Your task to perform on an android device: see creations saved in the google photos Image 0: 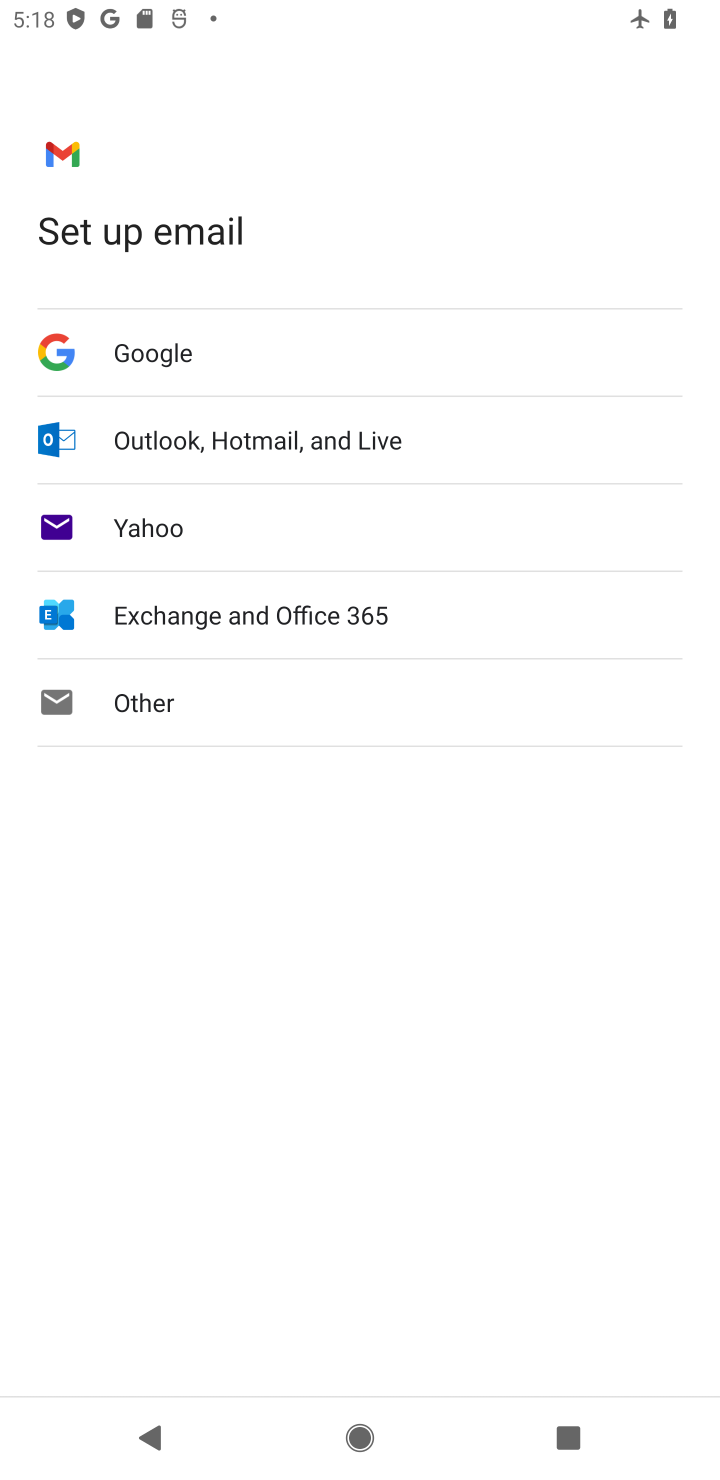
Step 0: press home button
Your task to perform on an android device: see creations saved in the google photos Image 1: 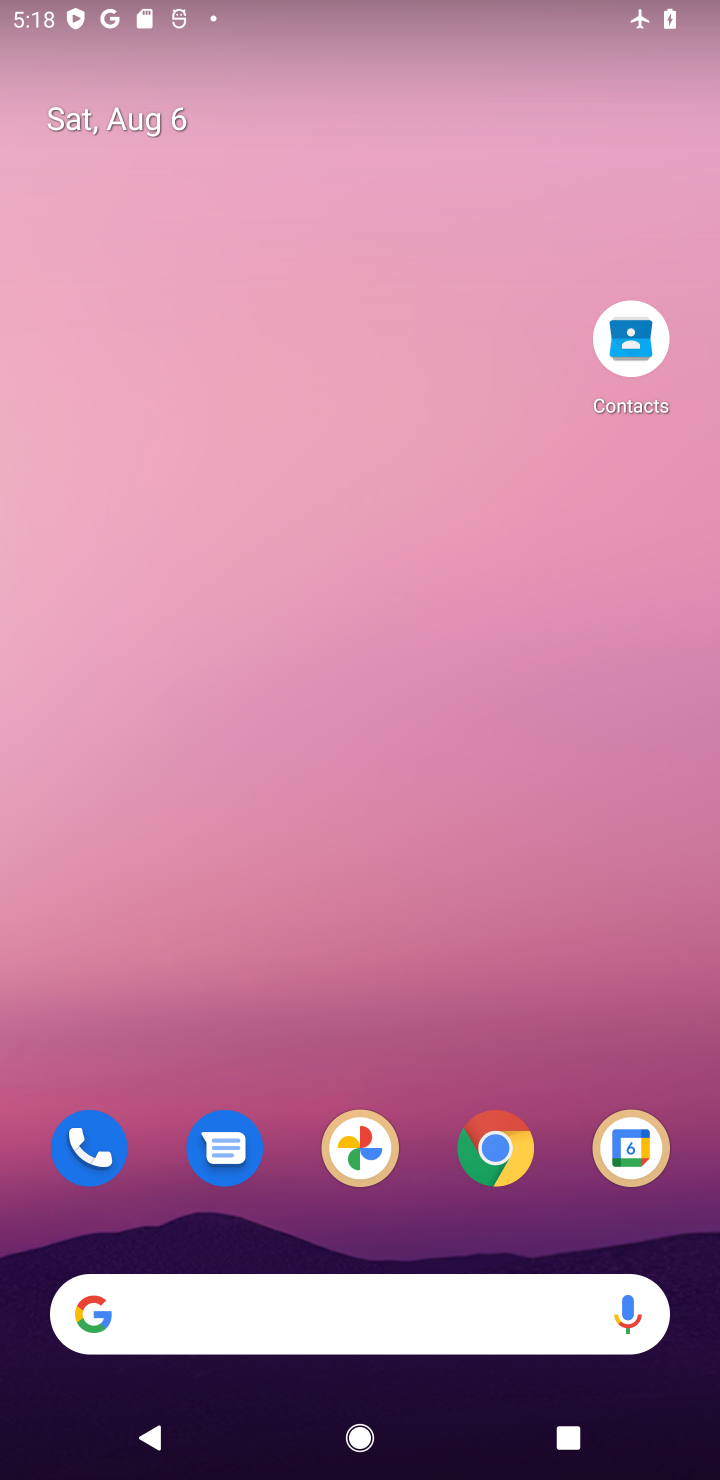
Step 1: drag from (402, 1238) to (615, 39)
Your task to perform on an android device: see creations saved in the google photos Image 2: 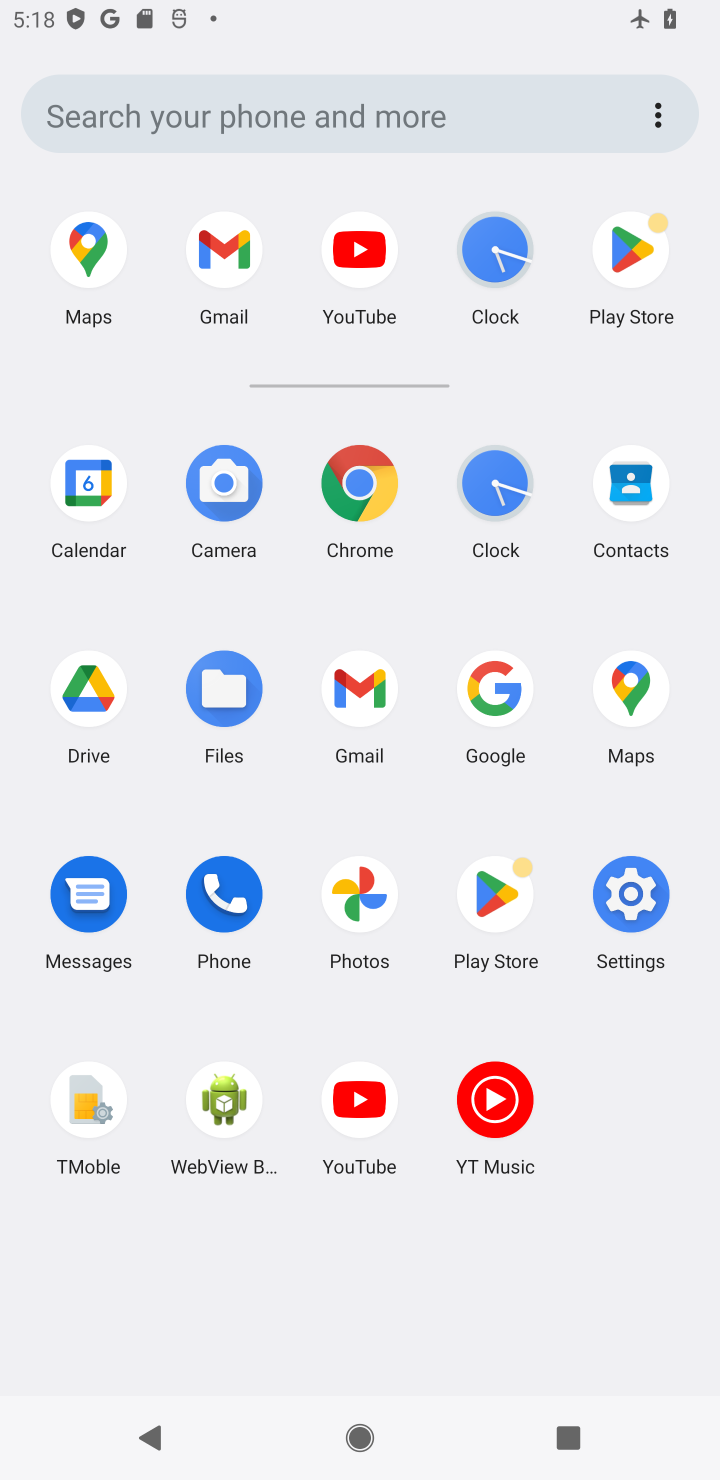
Step 2: click (375, 889)
Your task to perform on an android device: see creations saved in the google photos Image 3: 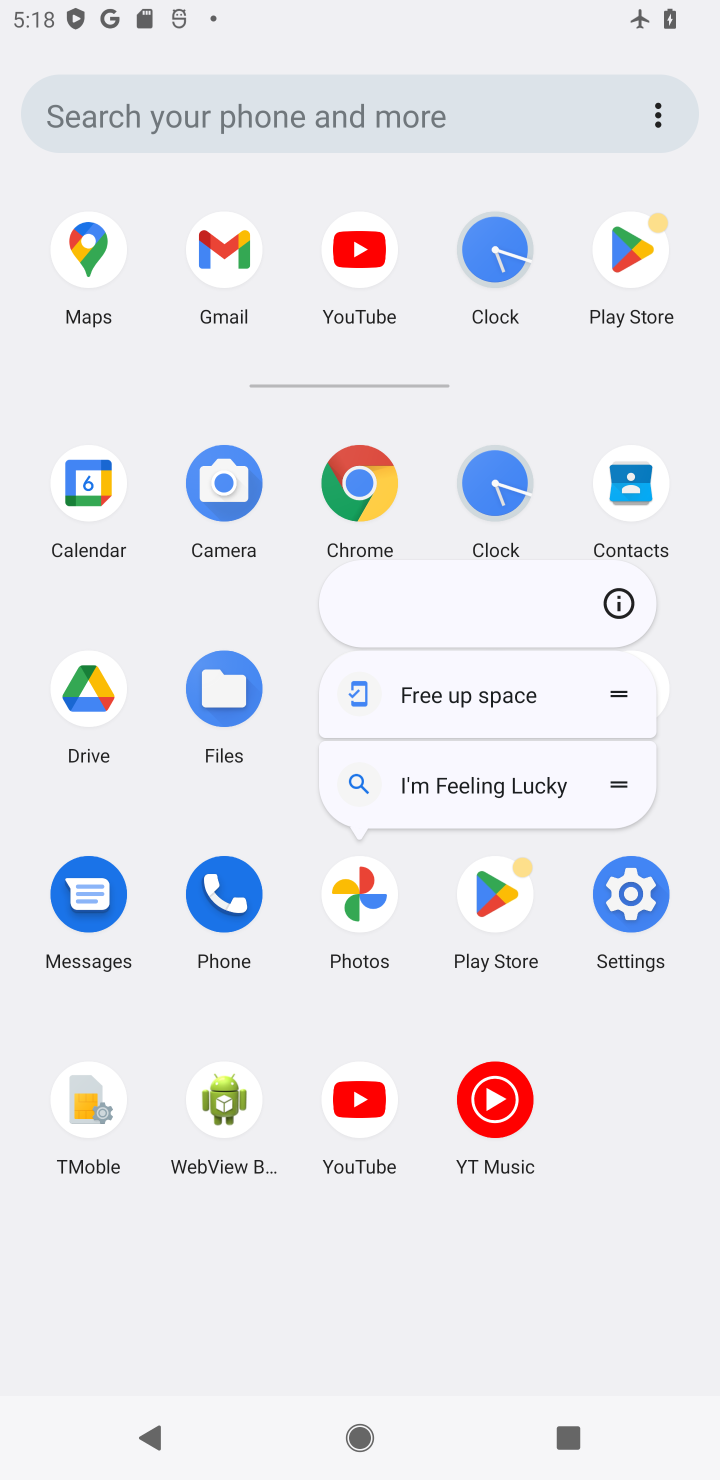
Step 3: click (375, 889)
Your task to perform on an android device: see creations saved in the google photos Image 4: 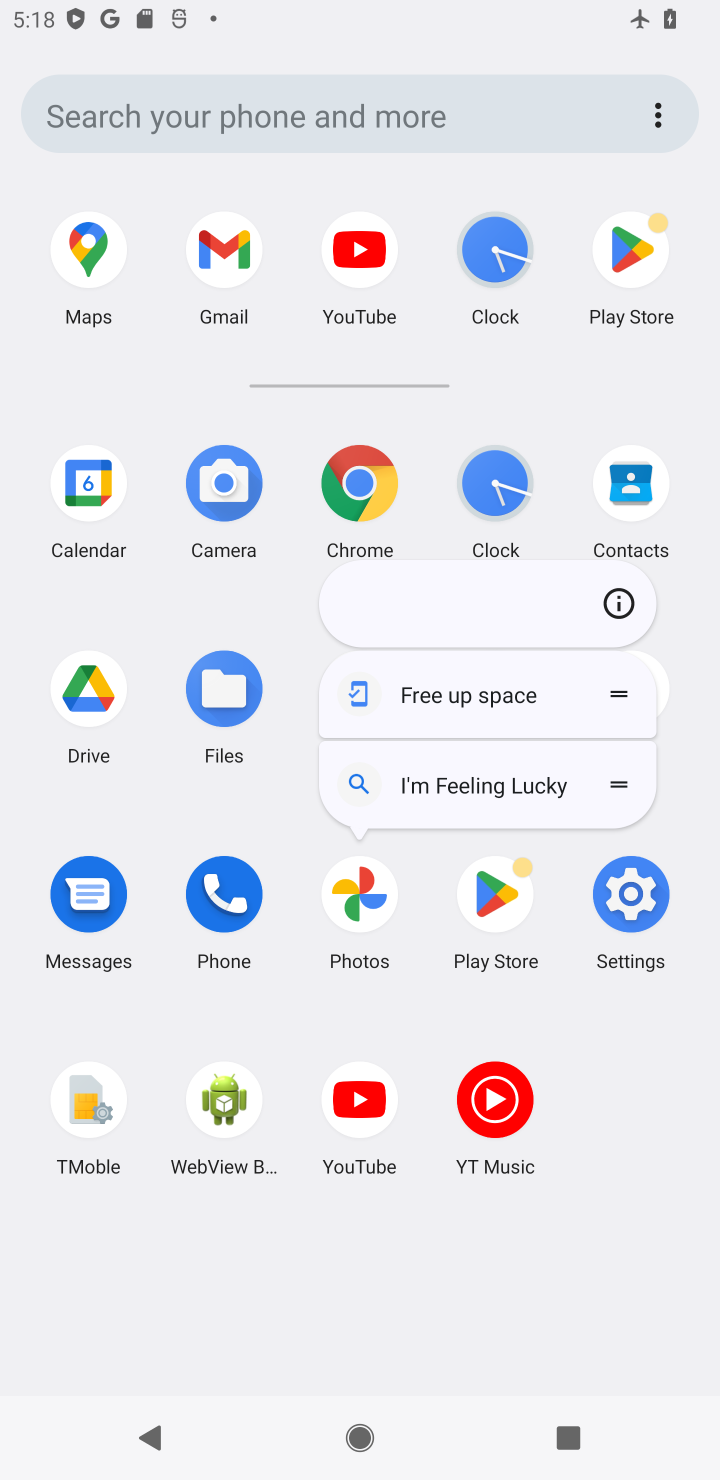
Step 4: click (349, 896)
Your task to perform on an android device: see creations saved in the google photos Image 5: 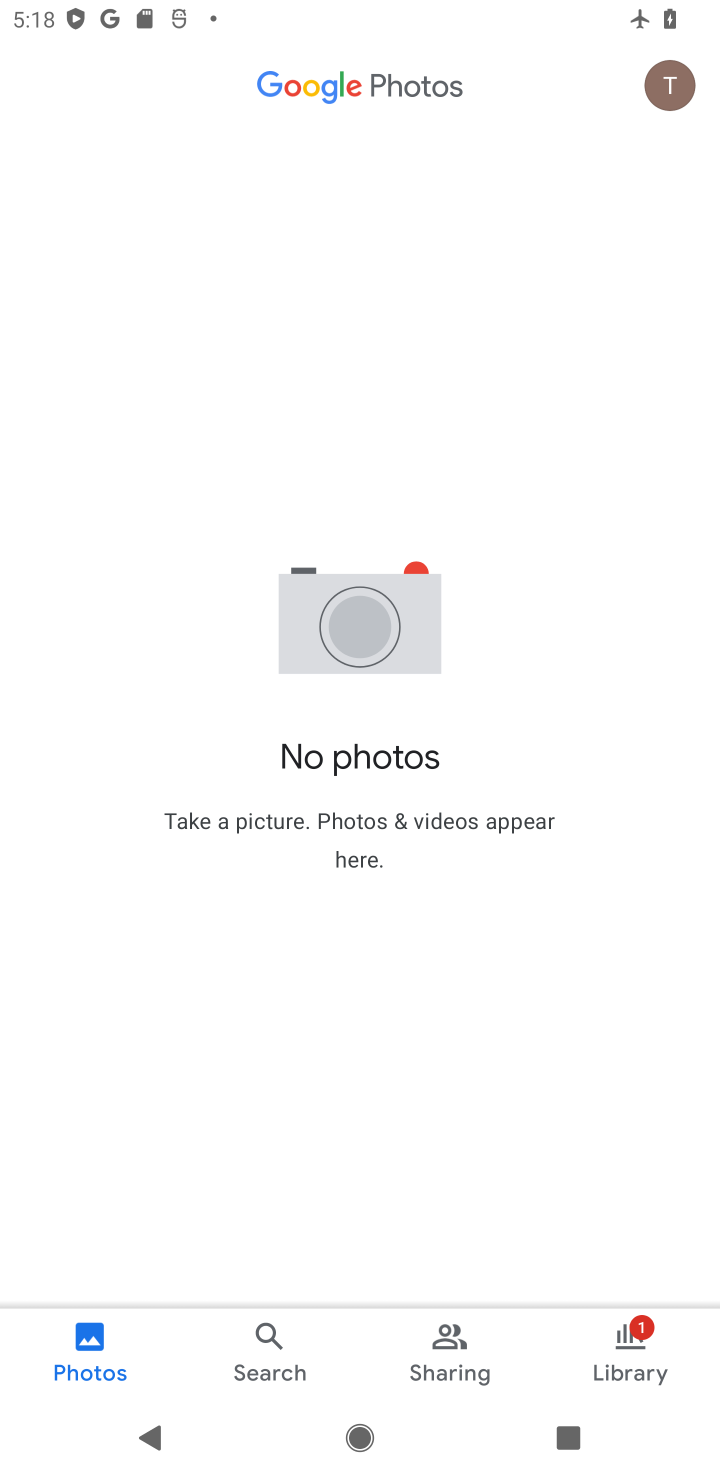
Step 5: click (254, 1345)
Your task to perform on an android device: see creations saved in the google photos Image 6: 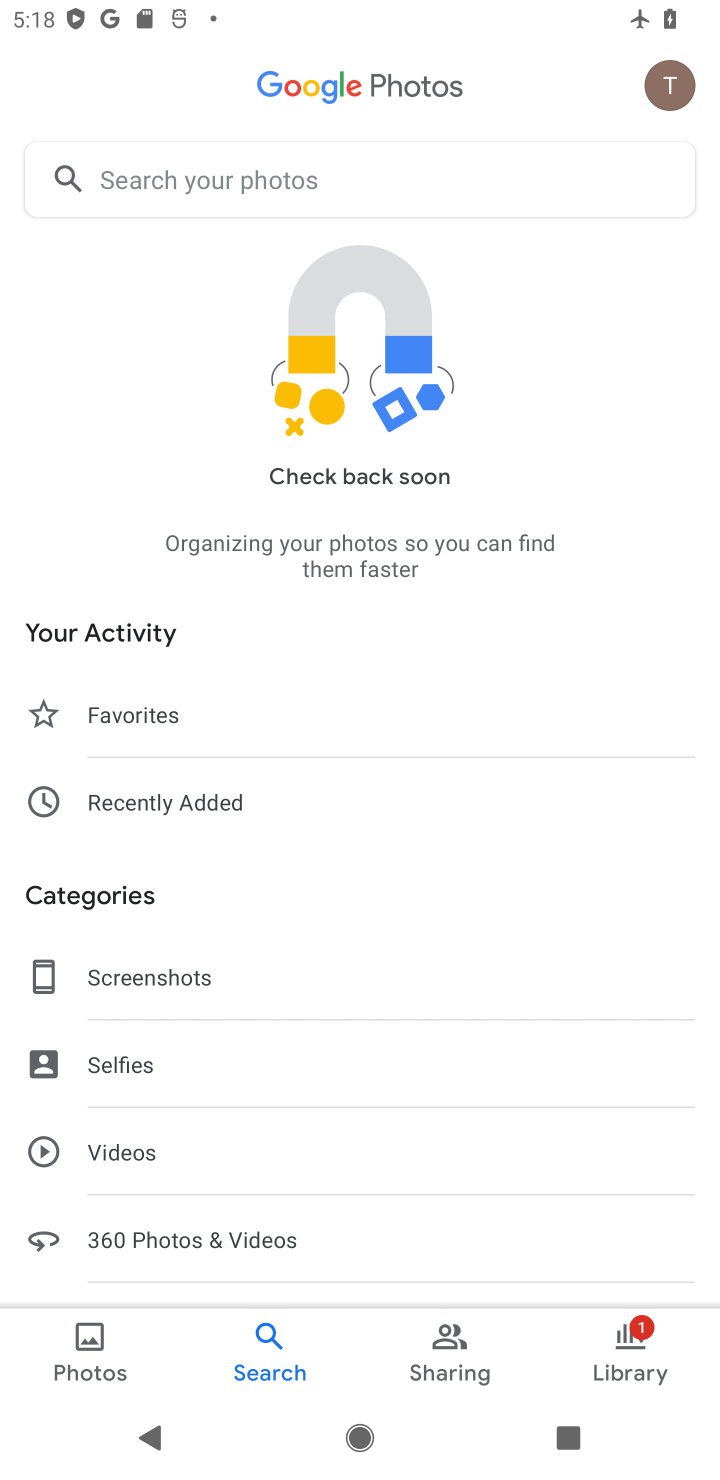
Step 6: click (277, 1334)
Your task to perform on an android device: see creations saved in the google photos Image 7: 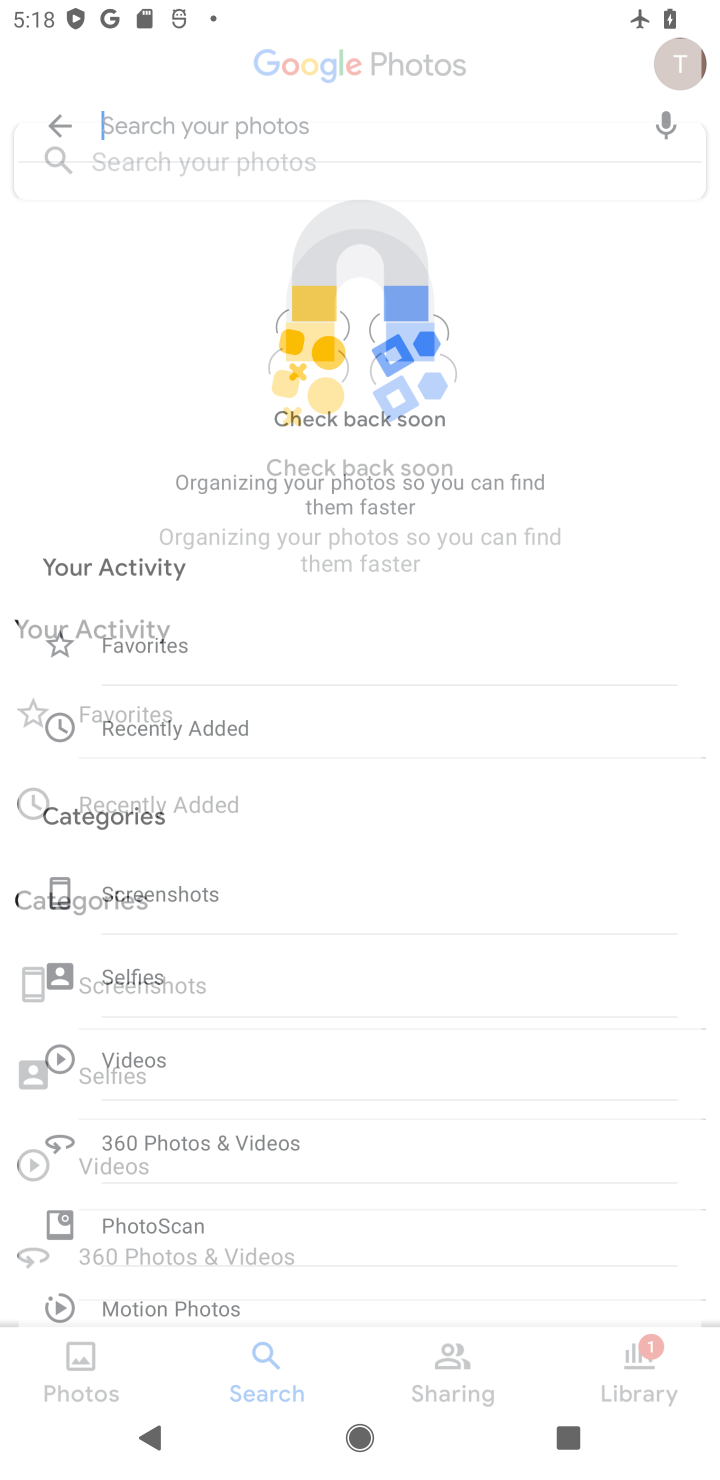
Step 7: drag from (288, 1229) to (289, 401)
Your task to perform on an android device: see creations saved in the google photos Image 8: 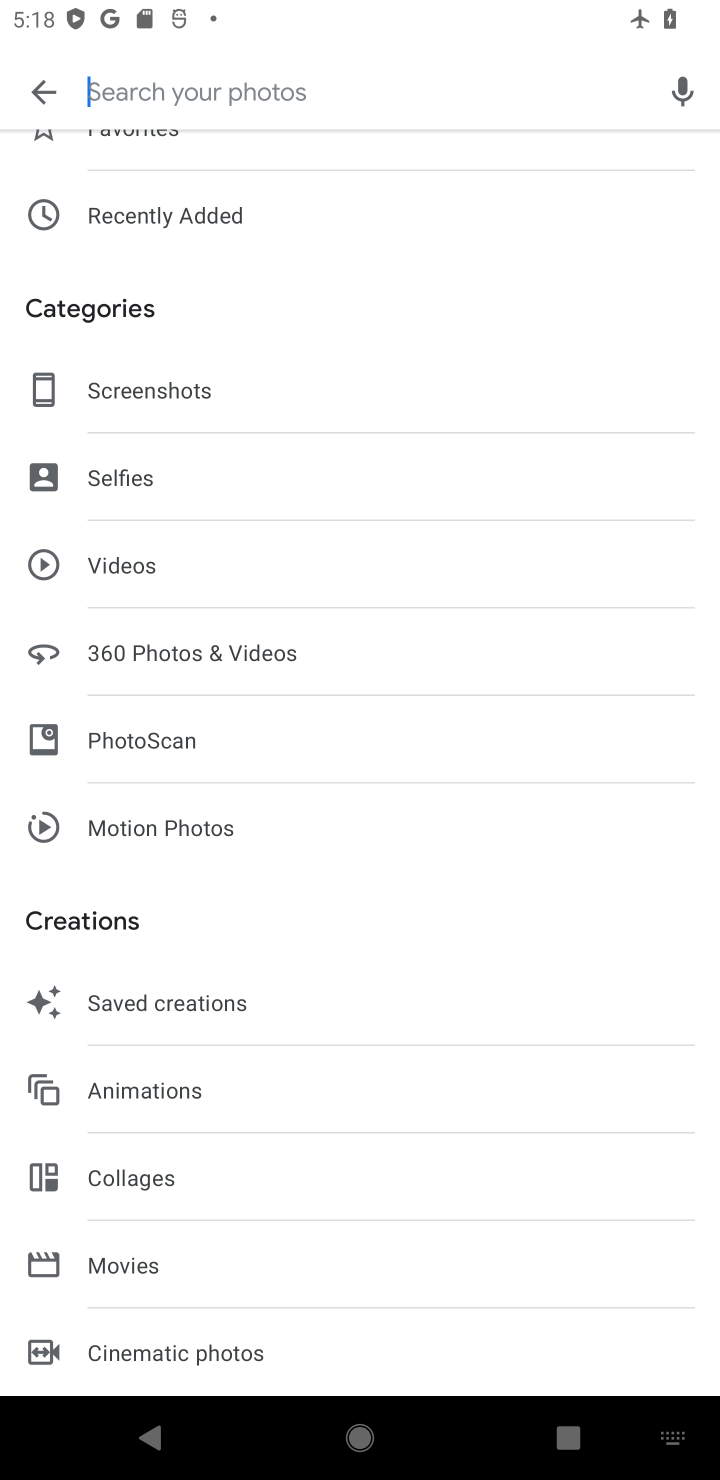
Step 8: click (192, 998)
Your task to perform on an android device: see creations saved in the google photos Image 9: 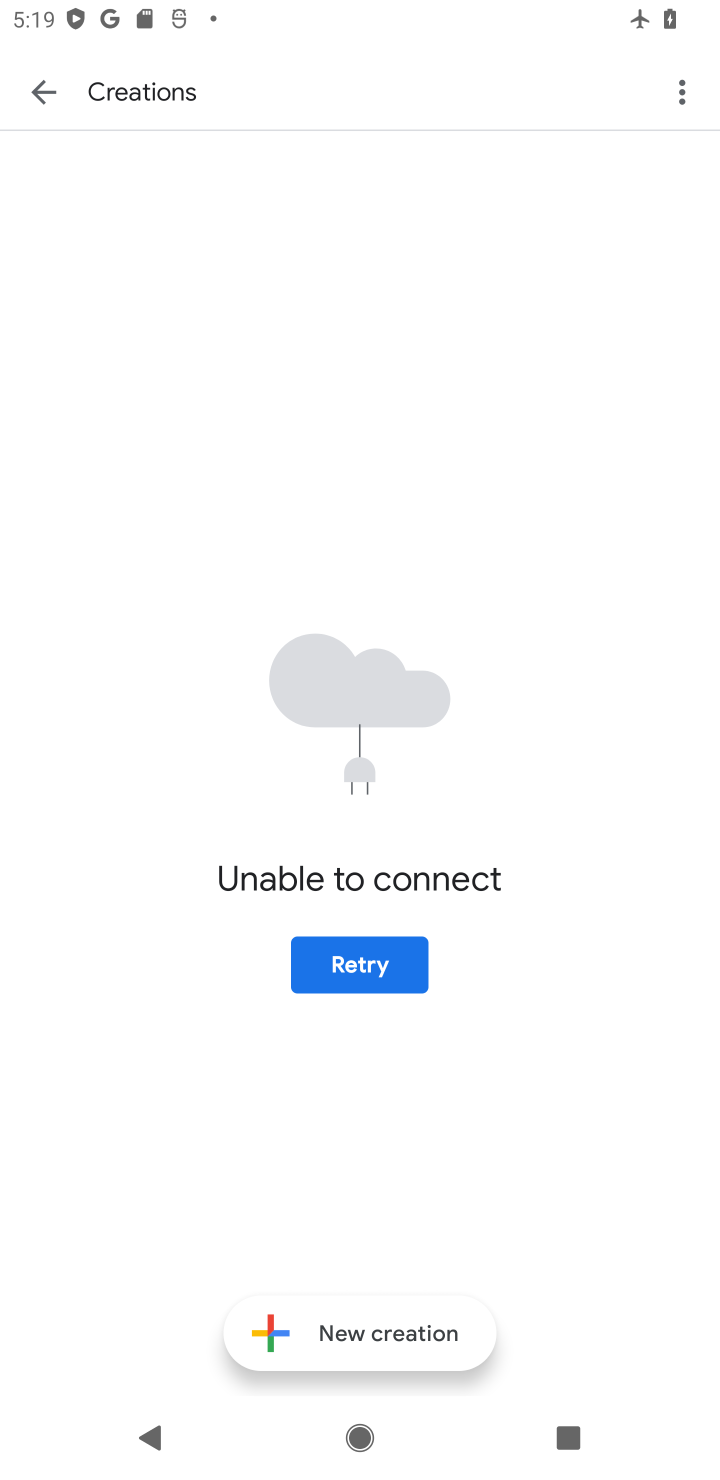
Step 9: task complete